Your task to perform on an android device: open device folders in google photos Image 0: 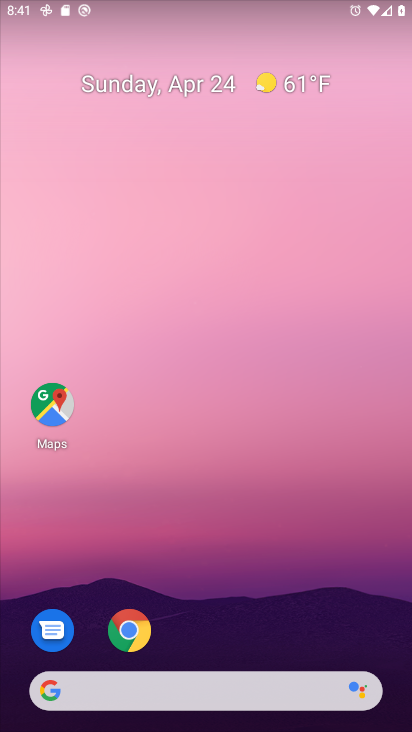
Step 0: drag from (353, 526) to (398, 285)
Your task to perform on an android device: open device folders in google photos Image 1: 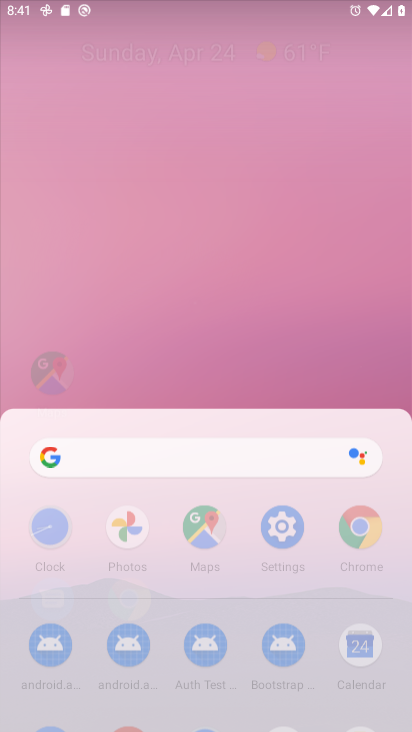
Step 1: drag from (311, 276) to (309, 8)
Your task to perform on an android device: open device folders in google photos Image 2: 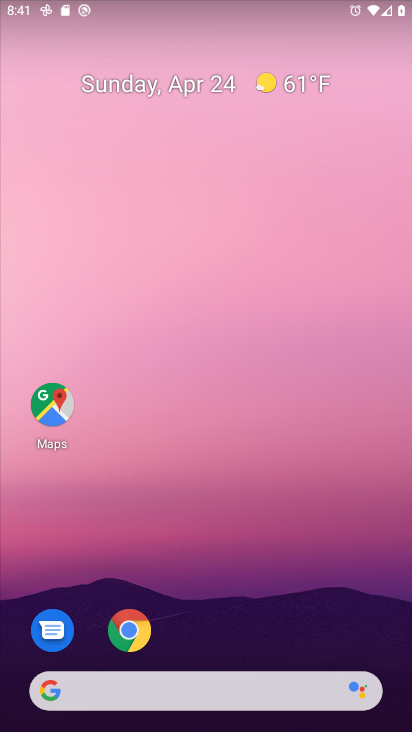
Step 2: drag from (312, 383) to (324, 0)
Your task to perform on an android device: open device folders in google photos Image 3: 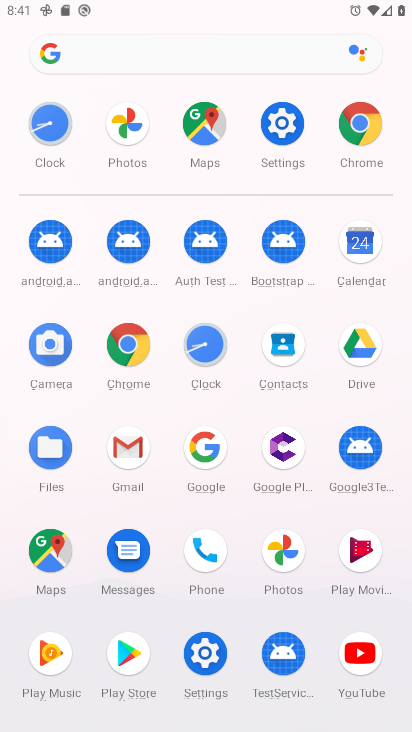
Step 3: drag from (272, 230) to (275, 32)
Your task to perform on an android device: open device folders in google photos Image 4: 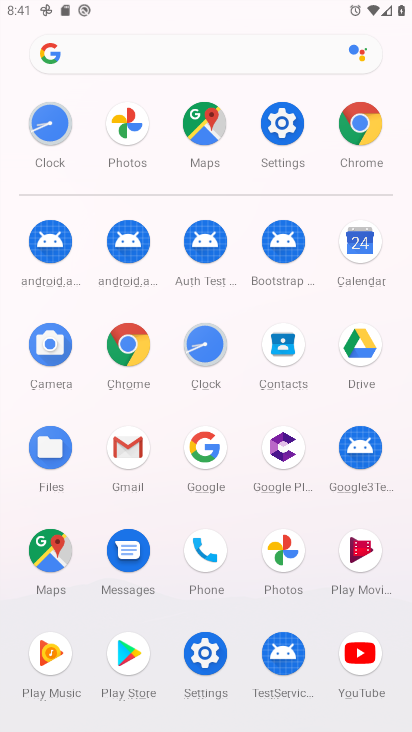
Step 4: click (288, 557)
Your task to perform on an android device: open device folders in google photos Image 5: 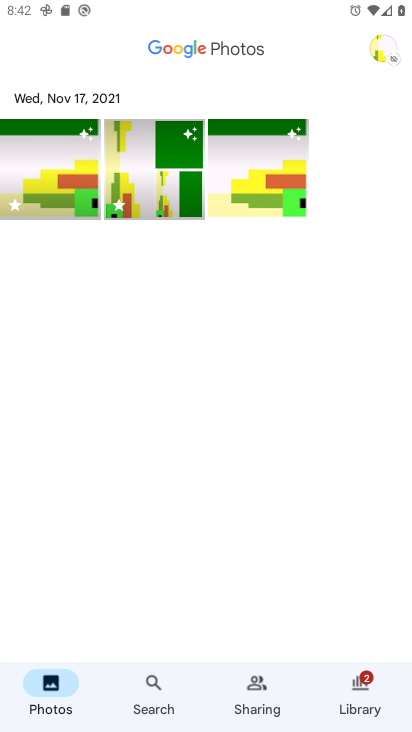
Step 5: click (370, 689)
Your task to perform on an android device: open device folders in google photos Image 6: 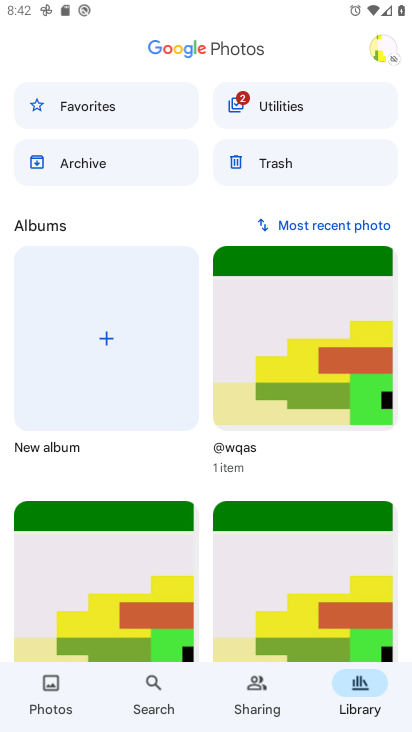
Step 6: task complete